Your task to perform on an android device: Open privacy settings Image 0: 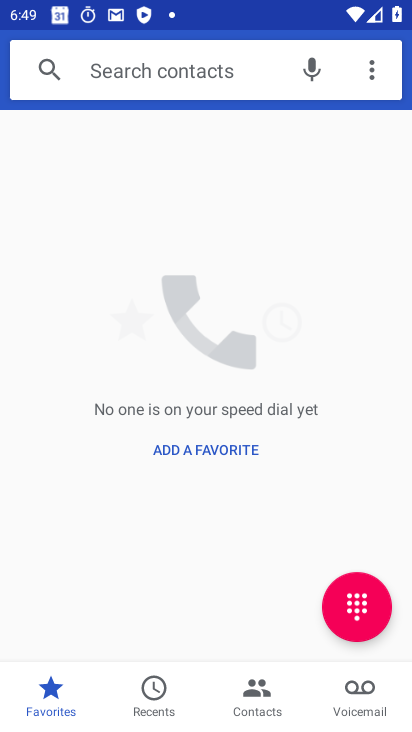
Step 0: press home button
Your task to perform on an android device: Open privacy settings Image 1: 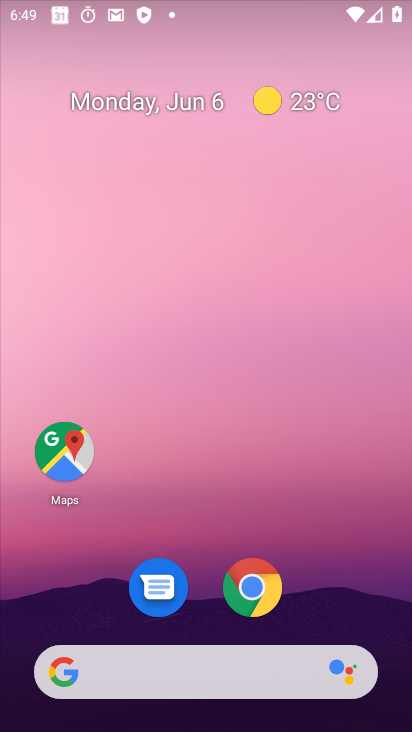
Step 1: drag from (389, 687) to (309, 107)
Your task to perform on an android device: Open privacy settings Image 2: 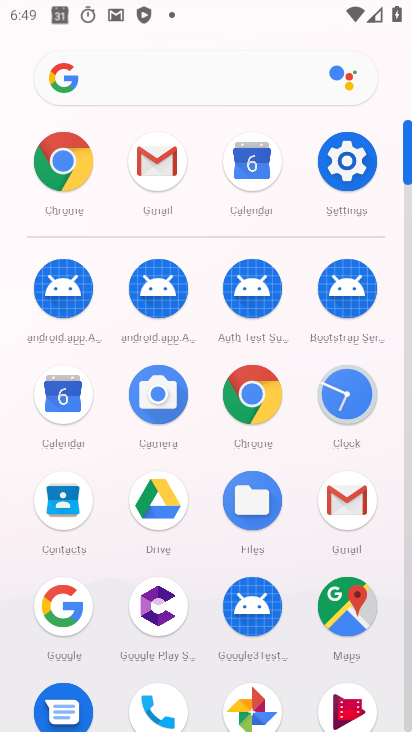
Step 2: click (320, 192)
Your task to perform on an android device: Open privacy settings Image 3: 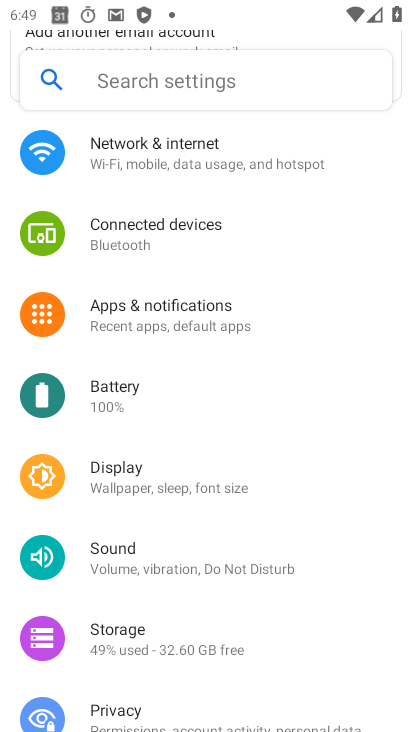
Step 3: click (119, 704)
Your task to perform on an android device: Open privacy settings Image 4: 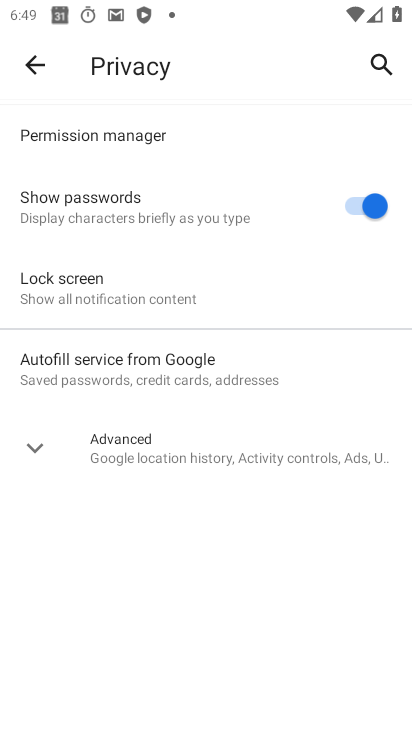
Step 4: task complete